Your task to perform on an android device: turn on showing notifications on the lock screen Image 0: 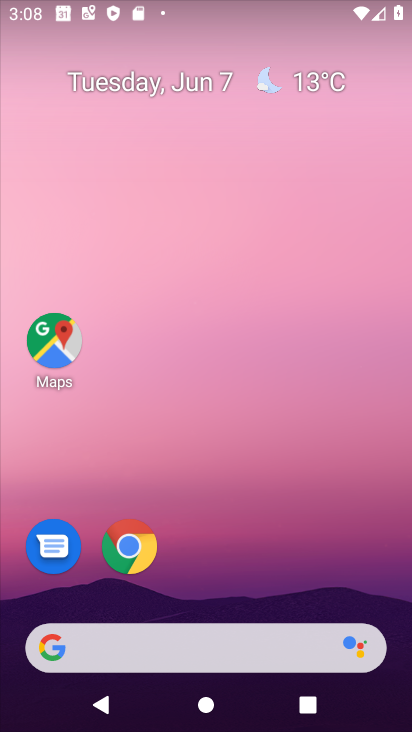
Step 0: drag from (98, 362) to (260, 107)
Your task to perform on an android device: turn on showing notifications on the lock screen Image 1: 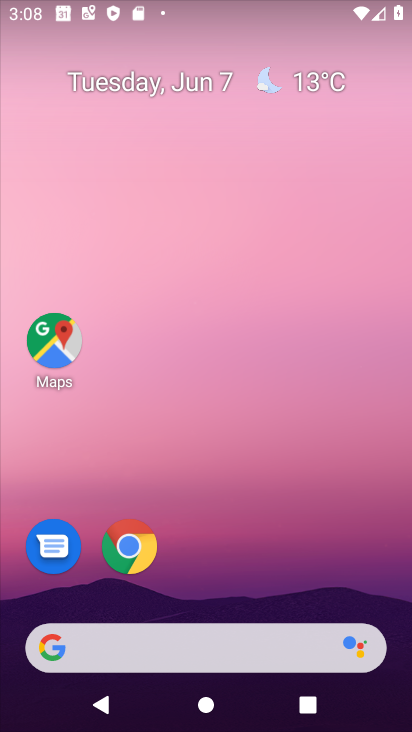
Step 1: drag from (58, 528) to (277, 107)
Your task to perform on an android device: turn on showing notifications on the lock screen Image 2: 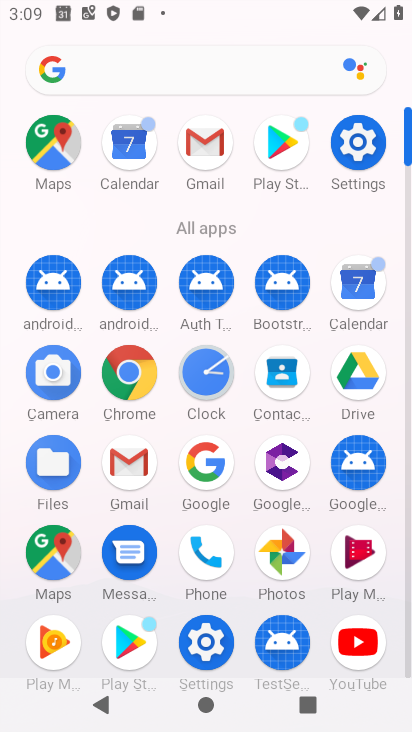
Step 2: click (367, 139)
Your task to perform on an android device: turn on showing notifications on the lock screen Image 3: 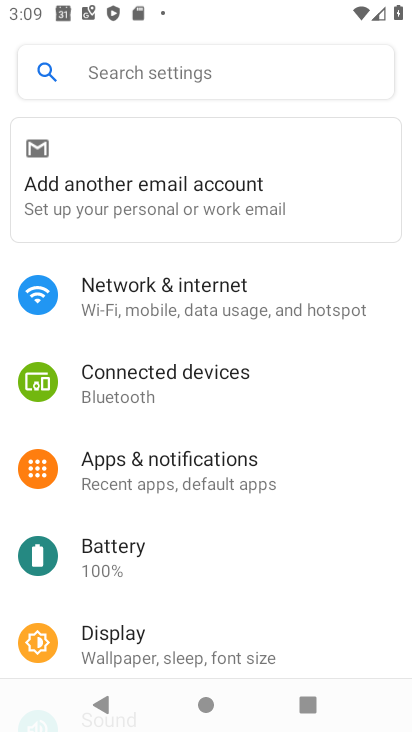
Step 3: click (196, 479)
Your task to perform on an android device: turn on showing notifications on the lock screen Image 4: 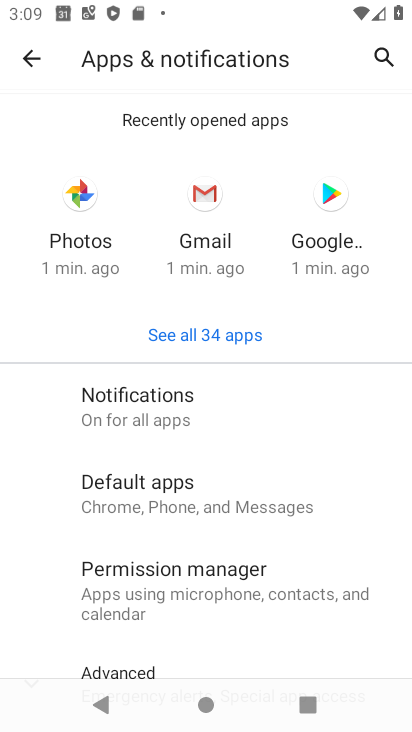
Step 4: drag from (26, 499) to (259, 175)
Your task to perform on an android device: turn on showing notifications on the lock screen Image 5: 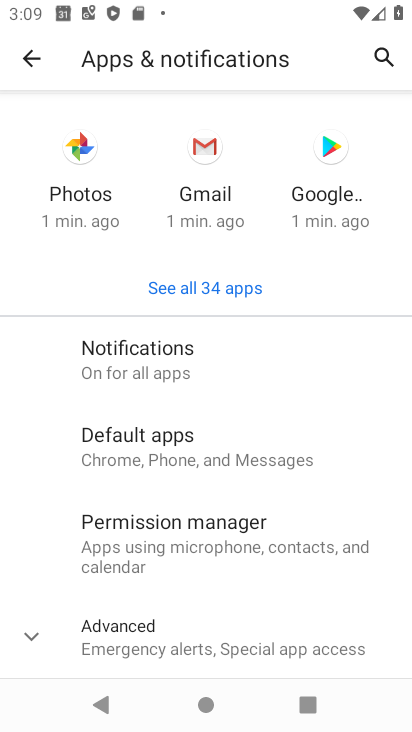
Step 5: drag from (6, 511) to (104, 335)
Your task to perform on an android device: turn on showing notifications on the lock screen Image 6: 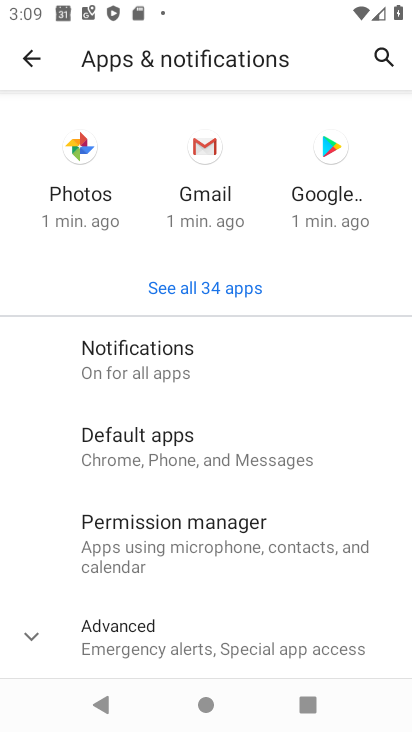
Step 6: click (121, 342)
Your task to perform on an android device: turn on showing notifications on the lock screen Image 7: 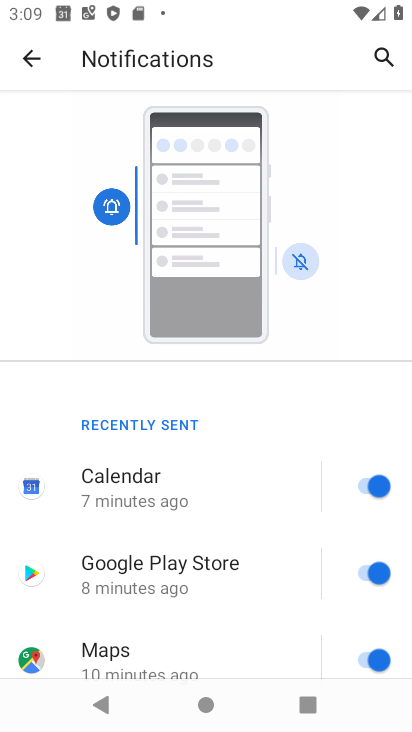
Step 7: drag from (5, 537) to (348, 68)
Your task to perform on an android device: turn on showing notifications on the lock screen Image 8: 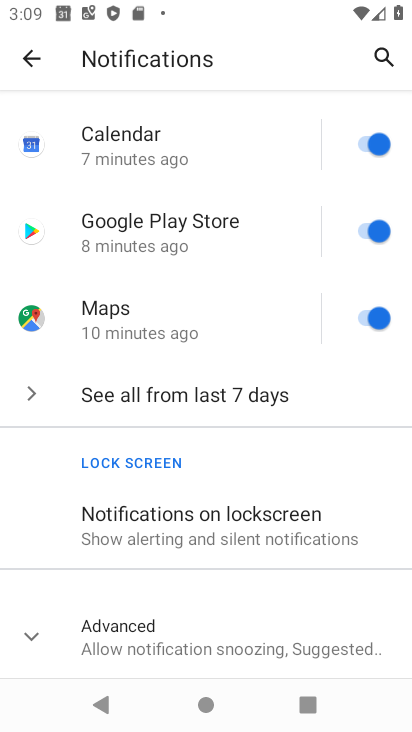
Step 8: click (291, 529)
Your task to perform on an android device: turn on showing notifications on the lock screen Image 9: 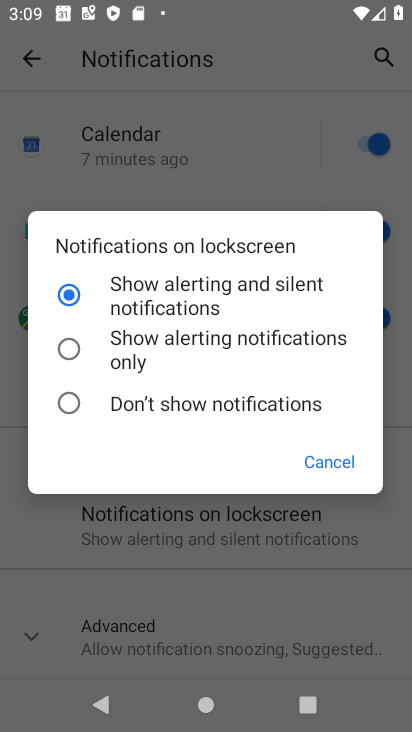
Step 9: task complete